Your task to perform on an android device: Open privacy settings Image 0: 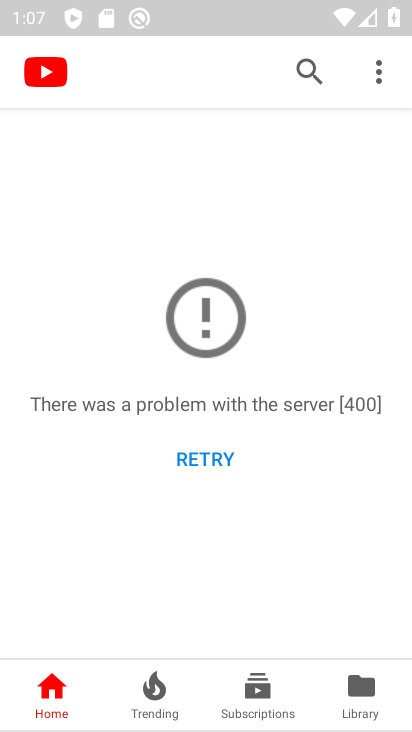
Step 0: press home button
Your task to perform on an android device: Open privacy settings Image 1: 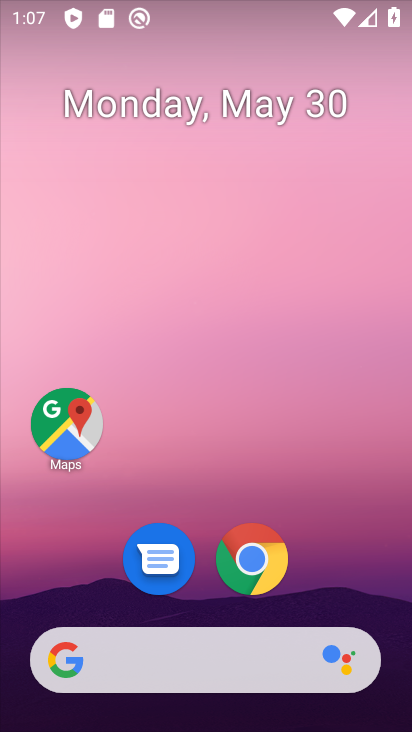
Step 1: drag from (304, 715) to (250, 39)
Your task to perform on an android device: Open privacy settings Image 2: 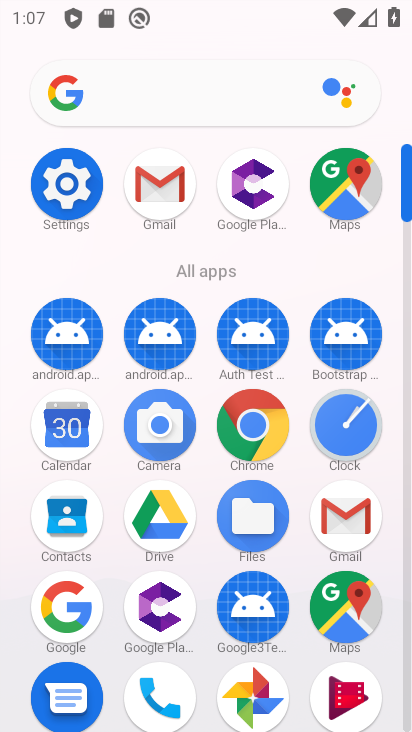
Step 2: click (67, 192)
Your task to perform on an android device: Open privacy settings Image 3: 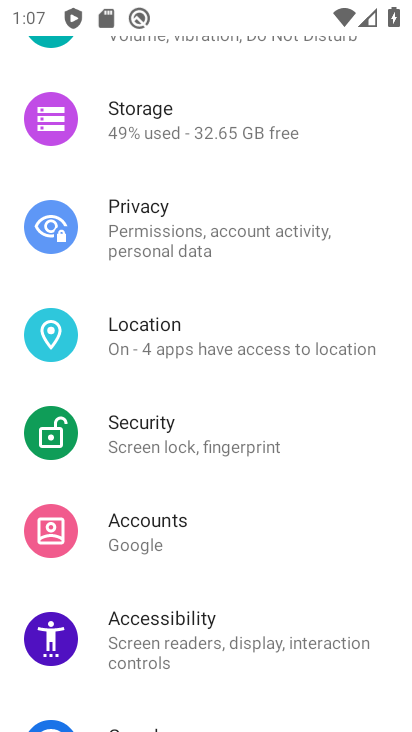
Step 3: drag from (187, 241) to (242, 222)
Your task to perform on an android device: Open privacy settings Image 4: 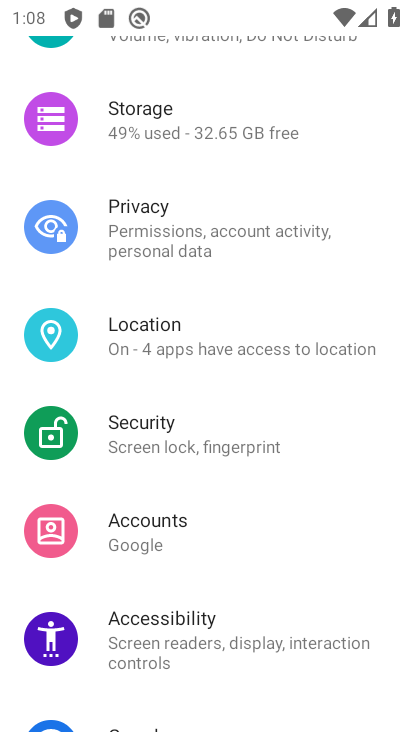
Step 4: click (98, 227)
Your task to perform on an android device: Open privacy settings Image 5: 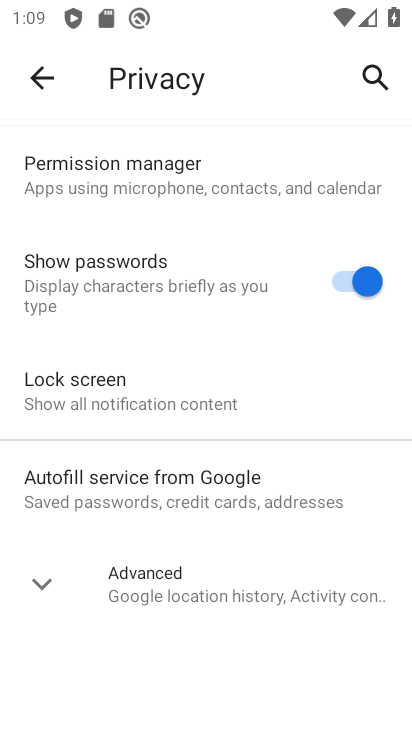
Step 5: task complete